Your task to perform on an android device: open a bookmark in the chrome app Image 0: 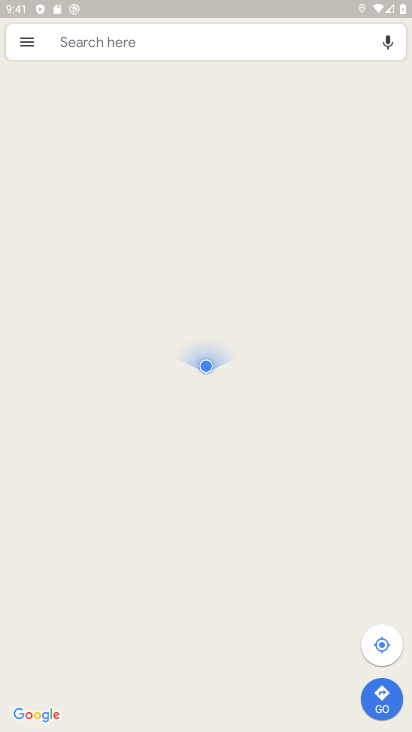
Step 0: press home button
Your task to perform on an android device: open a bookmark in the chrome app Image 1: 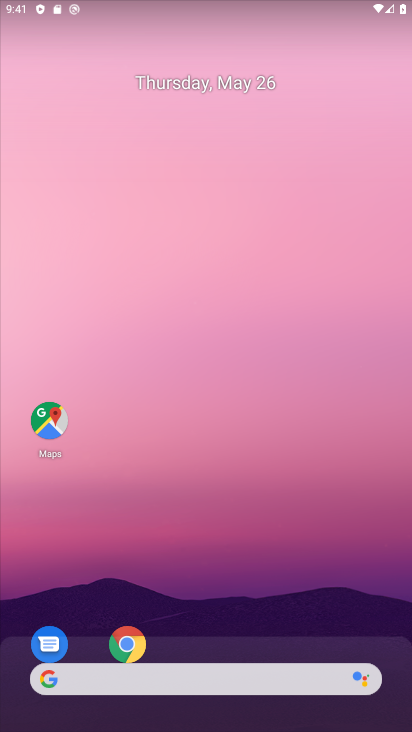
Step 1: drag from (314, 536) to (319, 170)
Your task to perform on an android device: open a bookmark in the chrome app Image 2: 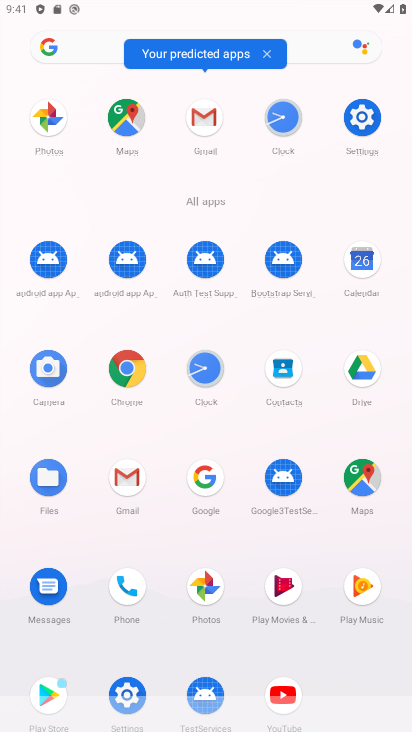
Step 2: click (115, 385)
Your task to perform on an android device: open a bookmark in the chrome app Image 3: 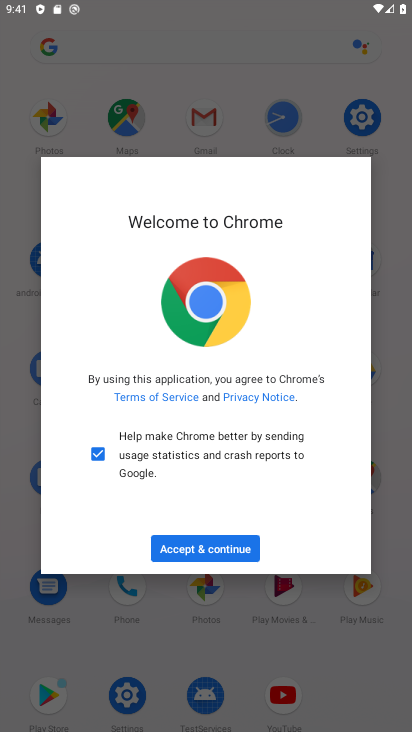
Step 3: click (196, 547)
Your task to perform on an android device: open a bookmark in the chrome app Image 4: 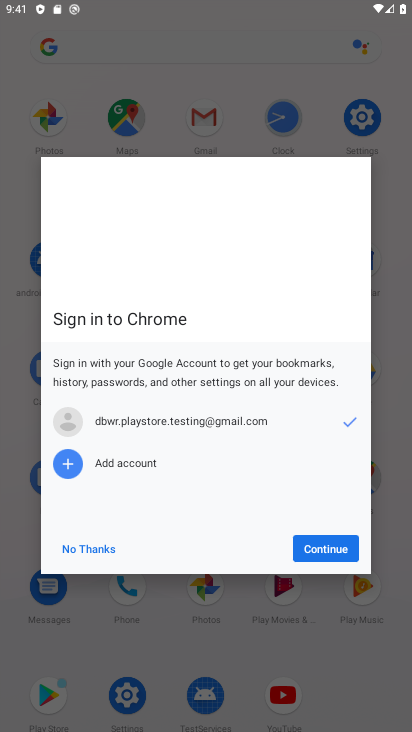
Step 4: click (324, 542)
Your task to perform on an android device: open a bookmark in the chrome app Image 5: 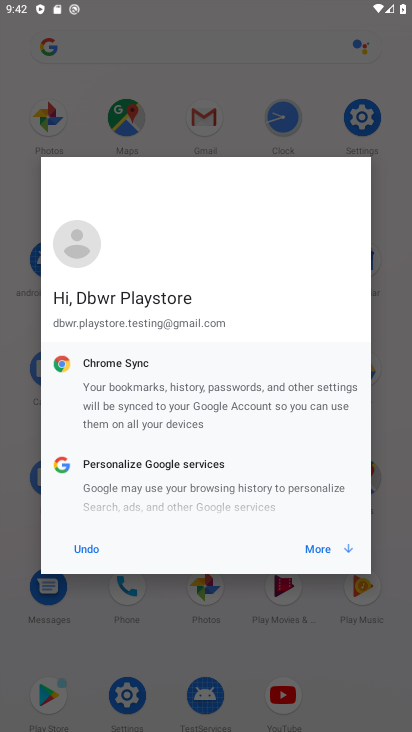
Step 5: click (324, 542)
Your task to perform on an android device: open a bookmark in the chrome app Image 6: 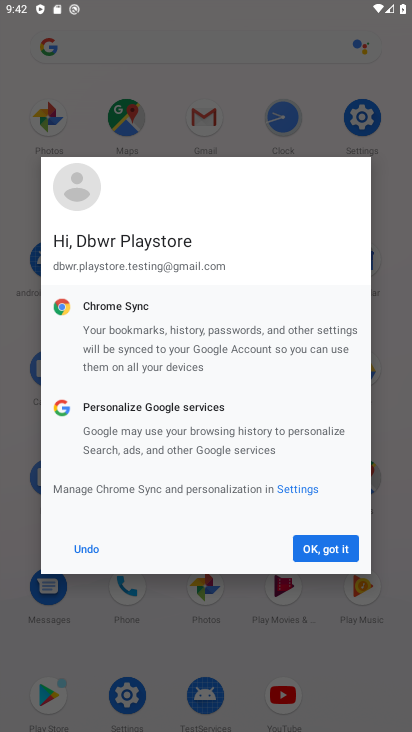
Step 6: click (324, 542)
Your task to perform on an android device: open a bookmark in the chrome app Image 7: 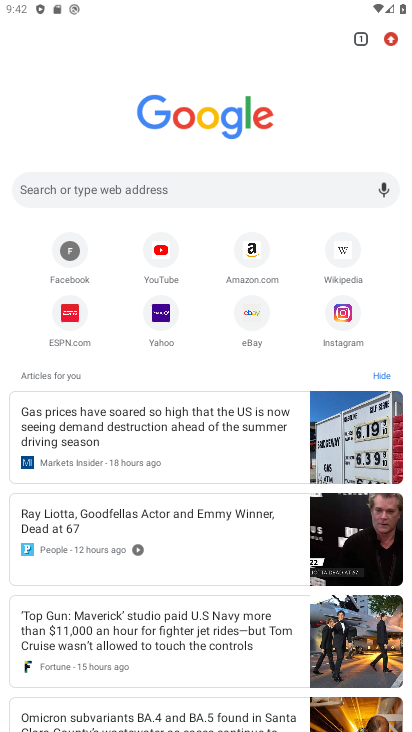
Step 7: click (392, 39)
Your task to perform on an android device: open a bookmark in the chrome app Image 8: 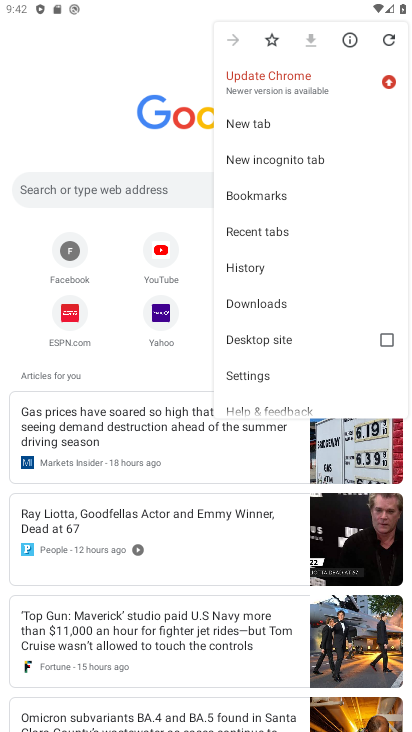
Step 8: click (293, 202)
Your task to perform on an android device: open a bookmark in the chrome app Image 9: 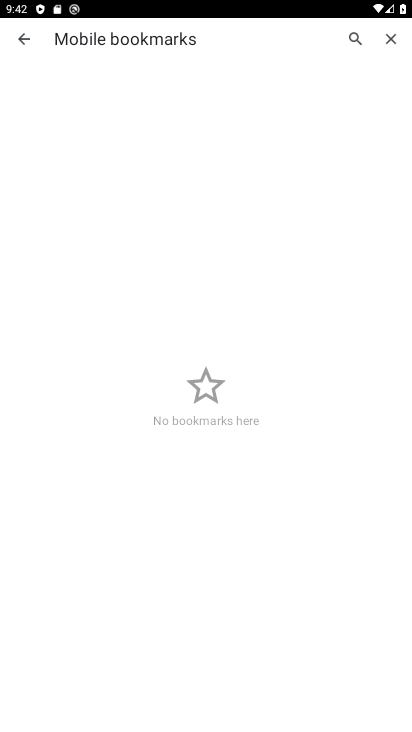
Step 9: task complete